Your task to perform on an android device: add a contact in the contacts app Image 0: 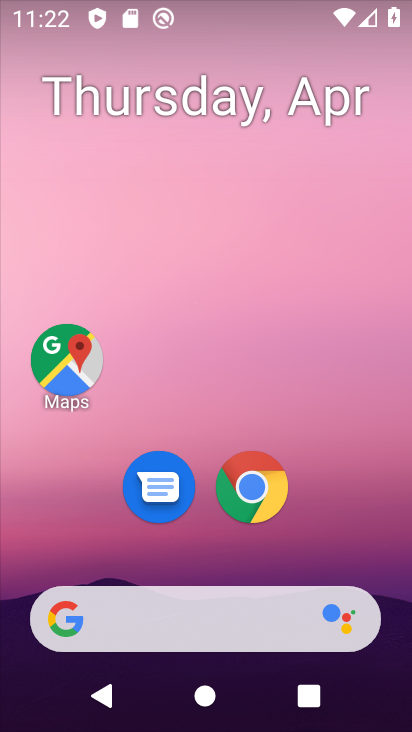
Step 0: drag from (356, 406) to (362, 242)
Your task to perform on an android device: add a contact in the contacts app Image 1: 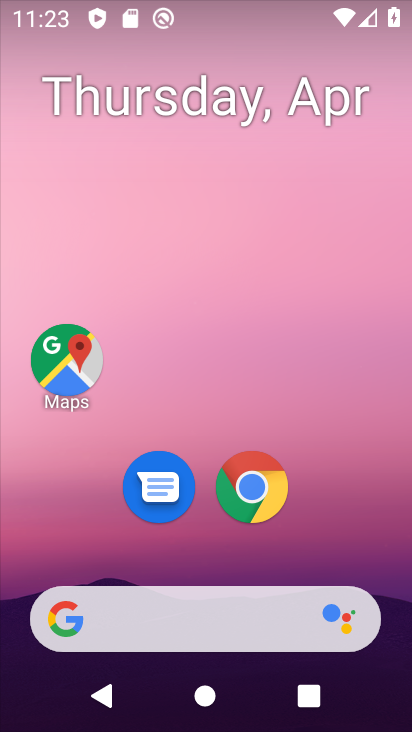
Step 1: drag from (291, 529) to (305, 162)
Your task to perform on an android device: add a contact in the contacts app Image 2: 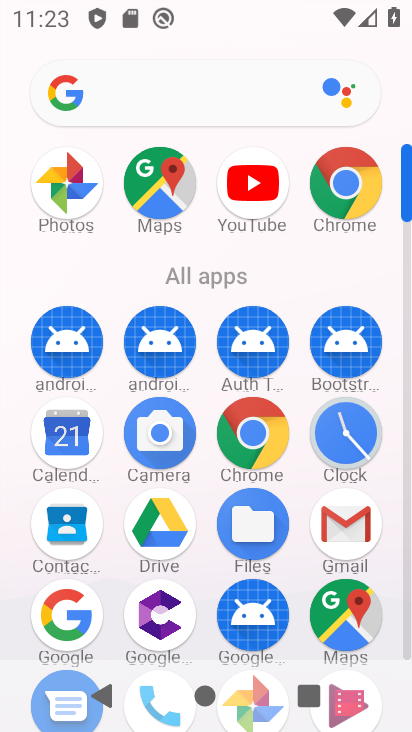
Step 2: drag from (293, 639) to (308, 352)
Your task to perform on an android device: add a contact in the contacts app Image 3: 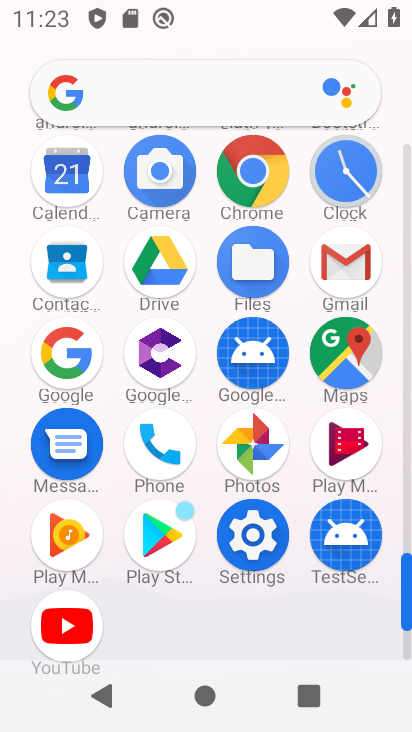
Step 3: click (152, 432)
Your task to perform on an android device: add a contact in the contacts app Image 4: 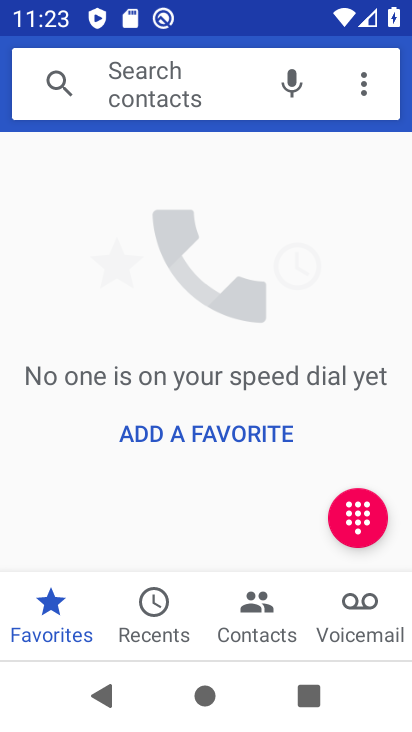
Step 4: click (205, 438)
Your task to perform on an android device: add a contact in the contacts app Image 5: 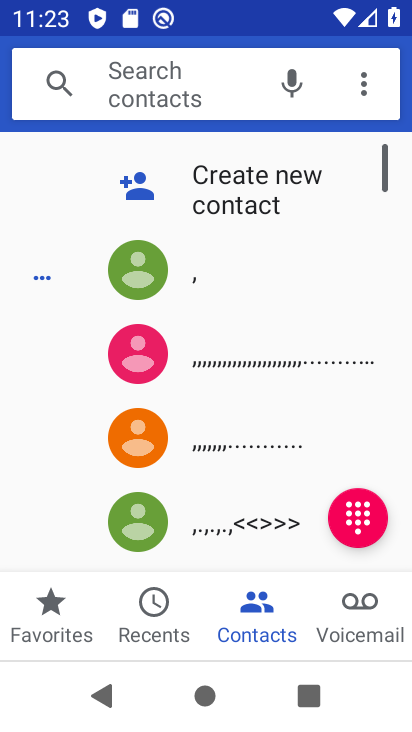
Step 5: click (214, 183)
Your task to perform on an android device: add a contact in the contacts app Image 6: 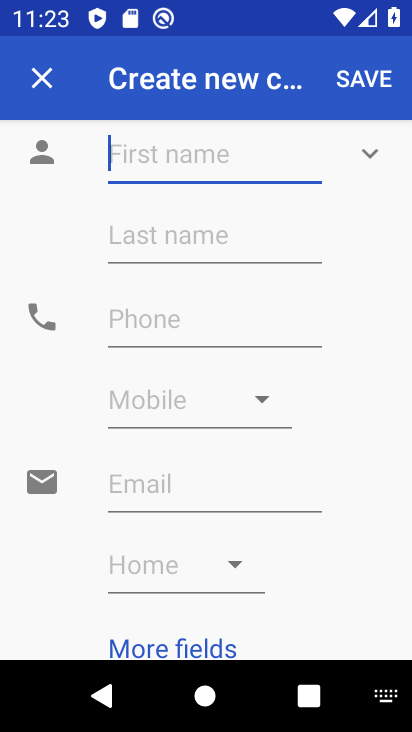
Step 6: type "xxxxxxxxxxxxxxxxxk"
Your task to perform on an android device: add a contact in the contacts app Image 7: 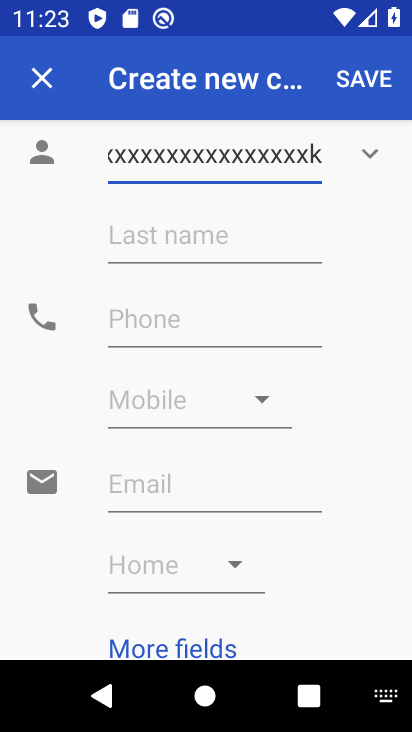
Step 7: click (211, 329)
Your task to perform on an android device: add a contact in the contacts app Image 8: 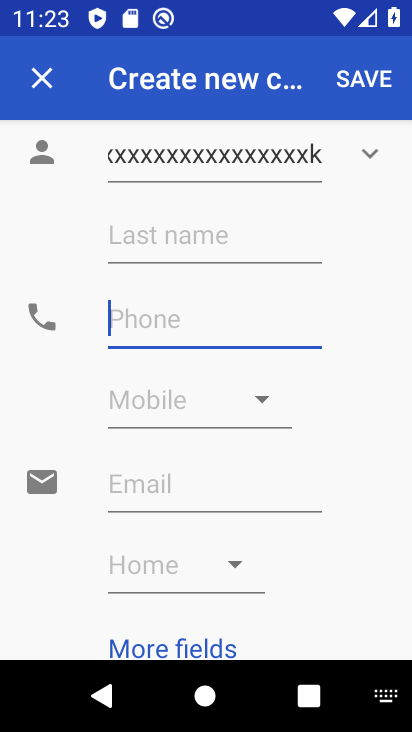
Step 8: type "666666666666666666666"
Your task to perform on an android device: add a contact in the contacts app Image 9: 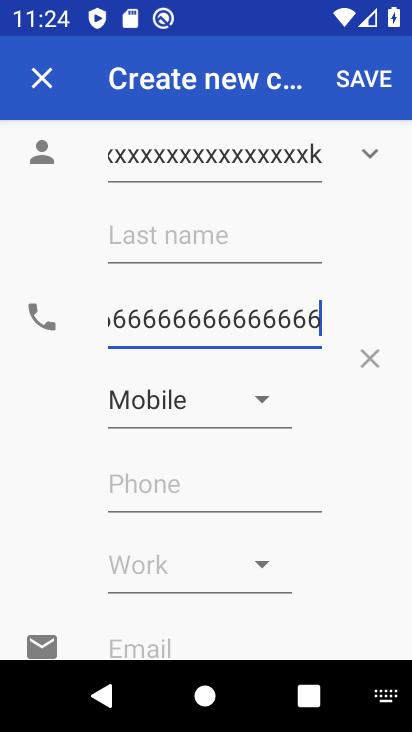
Step 9: click (346, 77)
Your task to perform on an android device: add a contact in the contacts app Image 10: 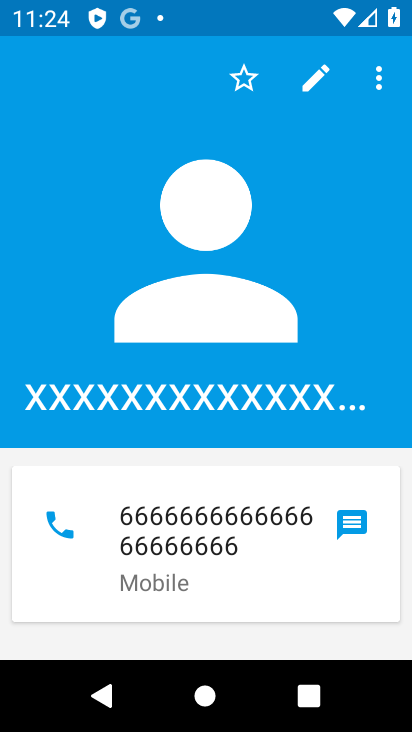
Step 10: task complete